Your task to perform on an android device: Open Wikipedia Image 0: 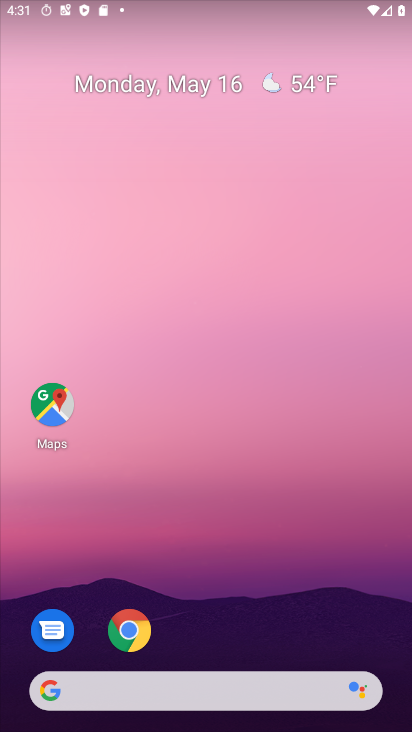
Step 0: click (132, 636)
Your task to perform on an android device: Open Wikipedia Image 1: 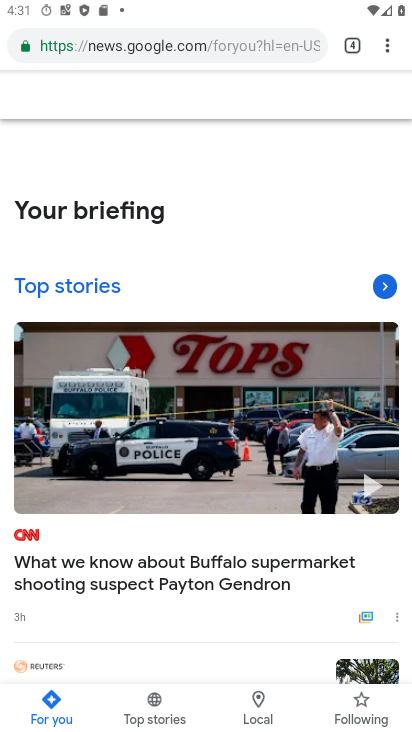
Step 1: click (346, 47)
Your task to perform on an android device: Open Wikipedia Image 2: 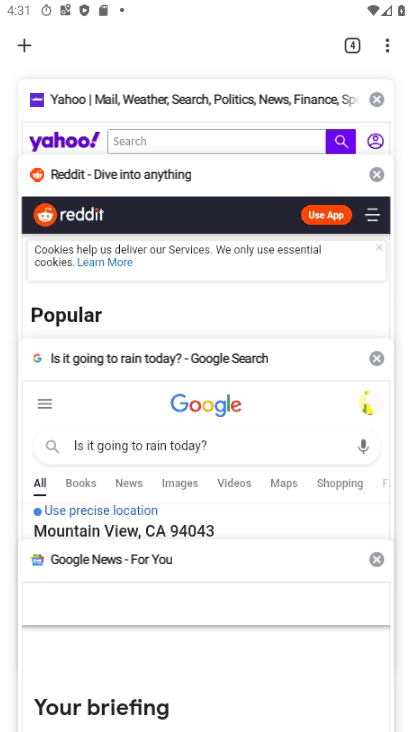
Step 2: click (18, 57)
Your task to perform on an android device: Open Wikipedia Image 3: 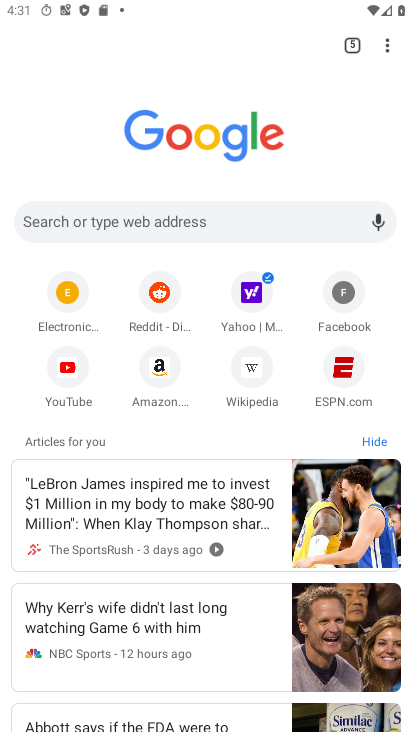
Step 3: click (255, 377)
Your task to perform on an android device: Open Wikipedia Image 4: 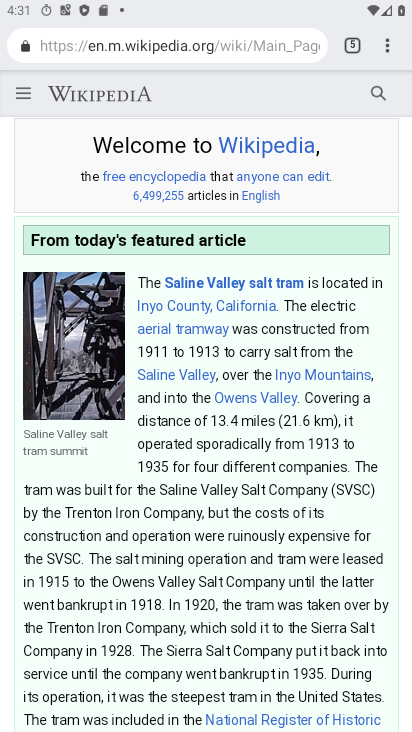
Step 4: task complete